Your task to perform on an android device: allow cookies in the chrome app Image 0: 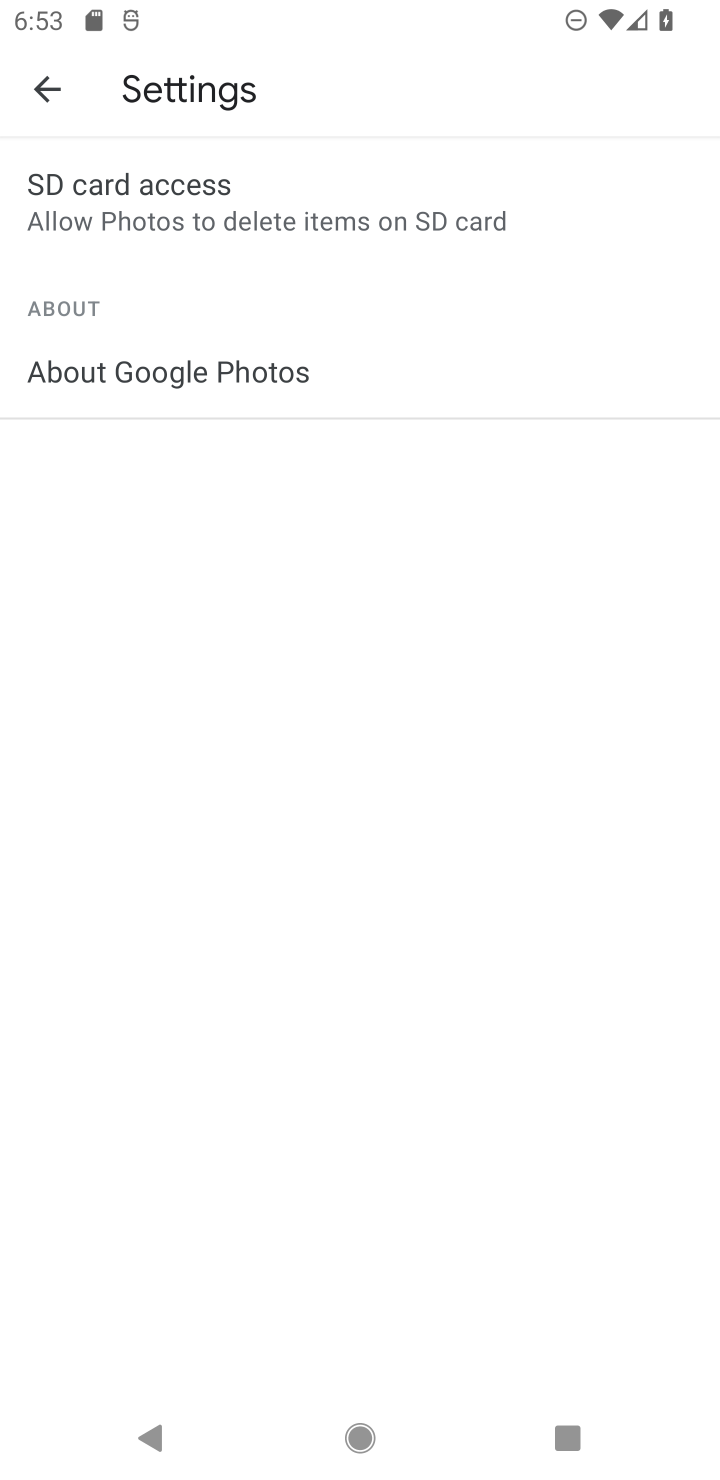
Step 0: press home button
Your task to perform on an android device: allow cookies in the chrome app Image 1: 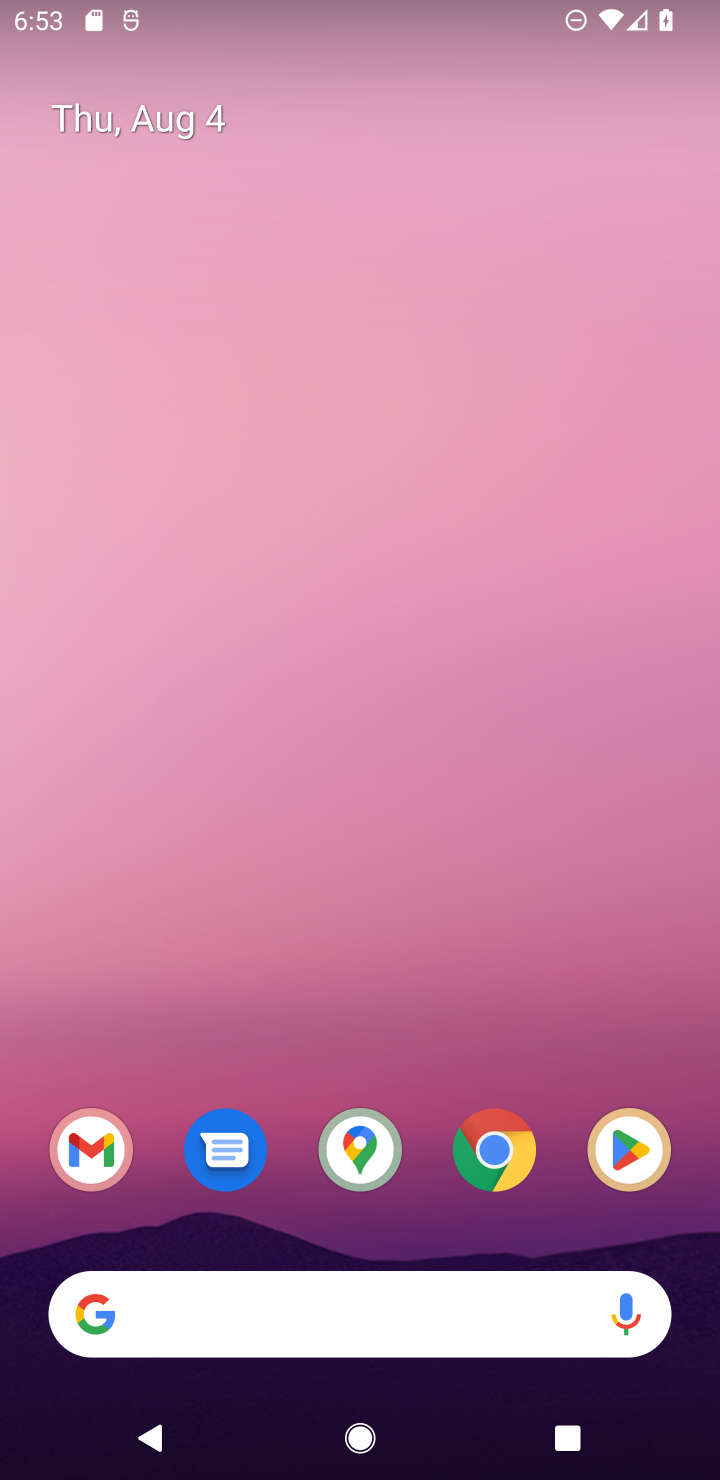
Step 1: drag from (320, 1205) to (461, 6)
Your task to perform on an android device: allow cookies in the chrome app Image 2: 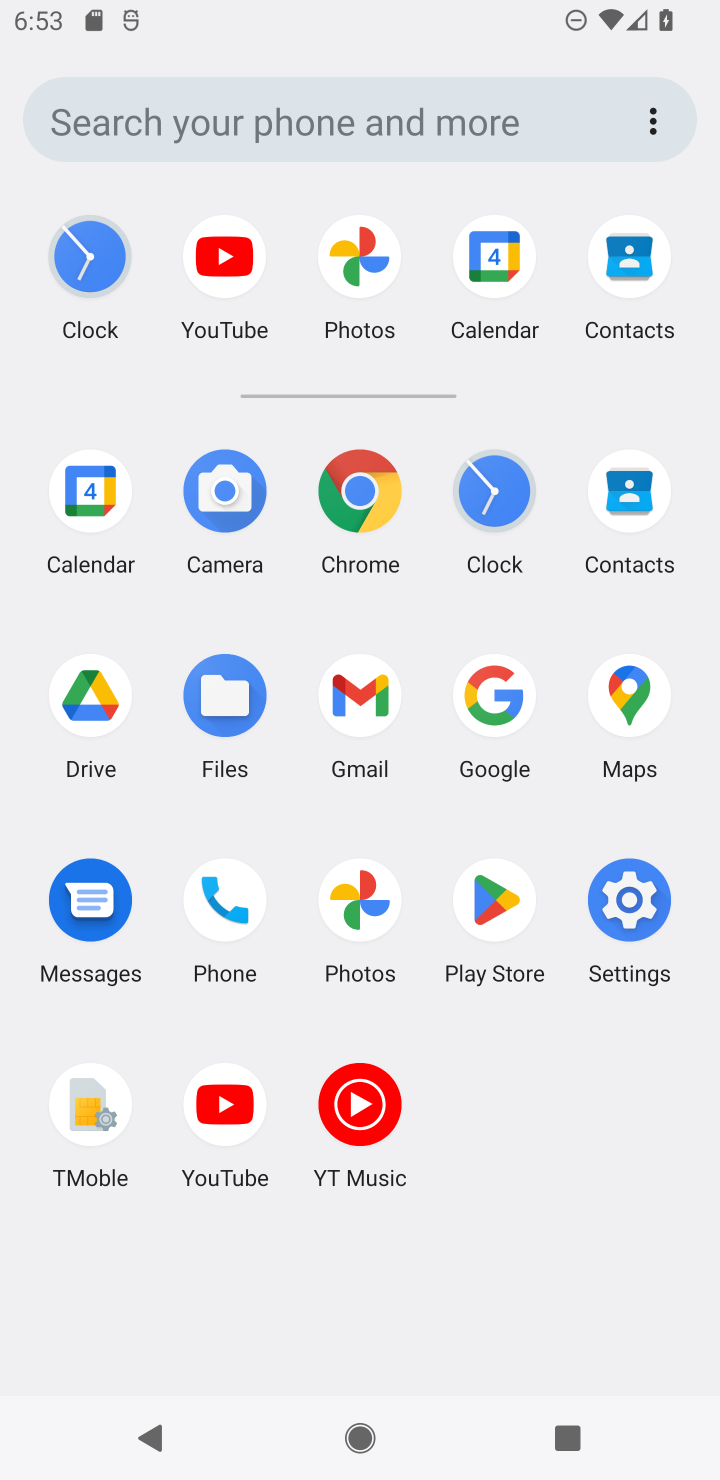
Step 2: click (374, 468)
Your task to perform on an android device: allow cookies in the chrome app Image 3: 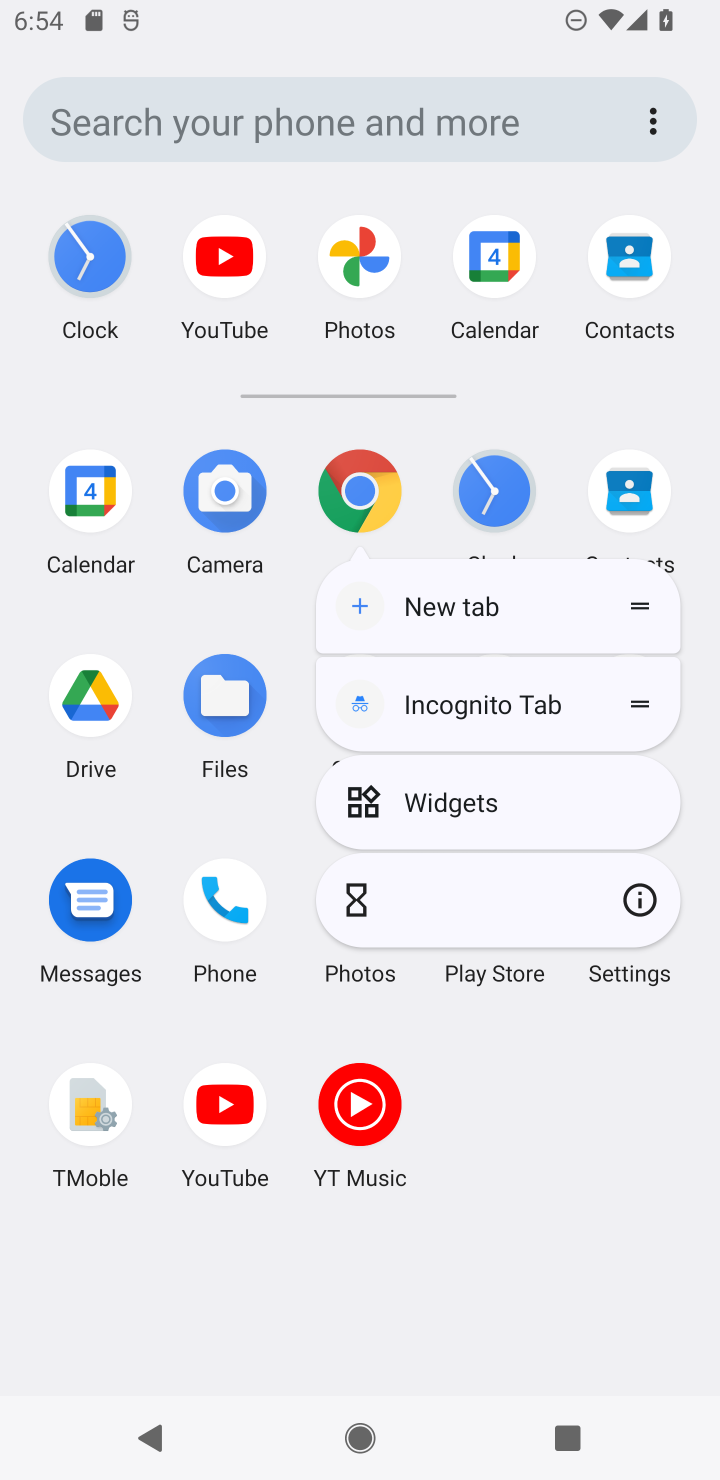
Step 3: click (373, 469)
Your task to perform on an android device: allow cookies in the chrome app Image 4: 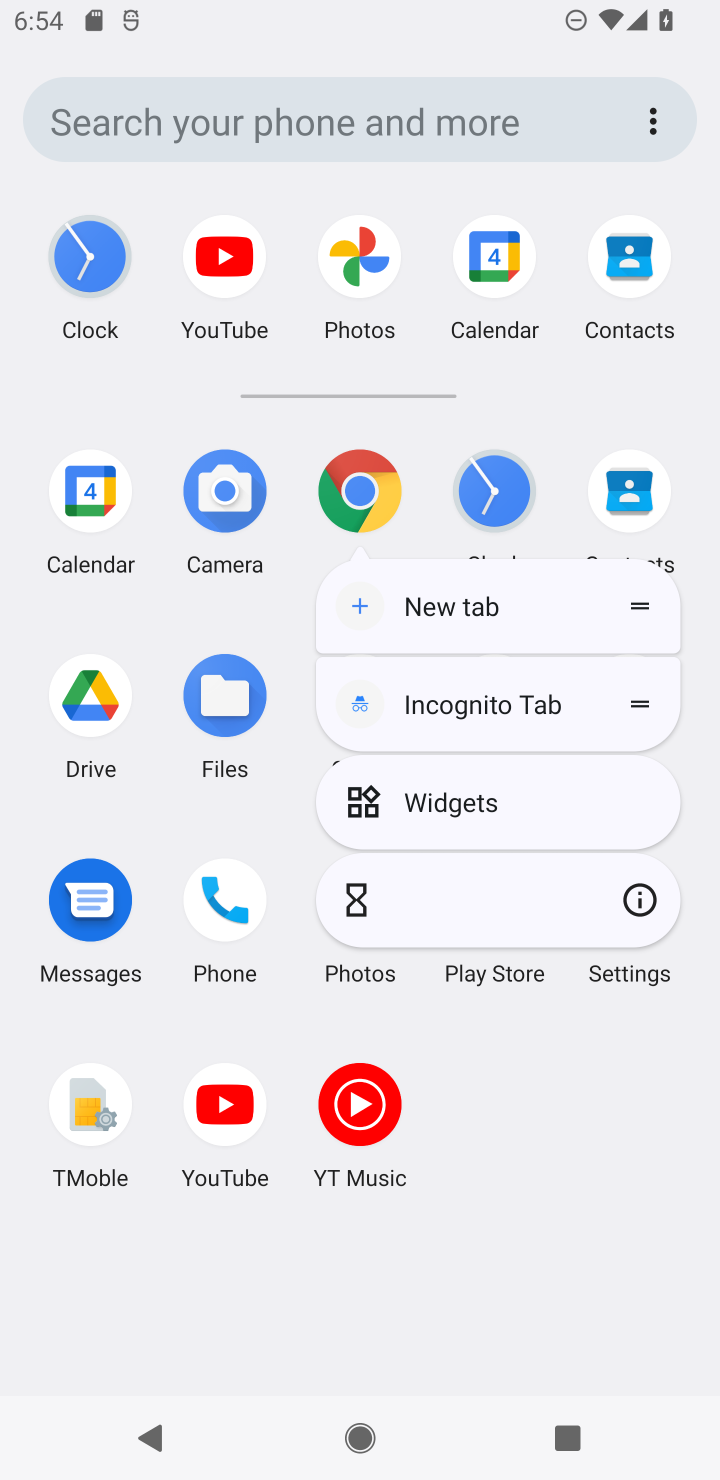
Step 4: click (360, 532)
Your task to perform on an android device: allow cookies in the chrome app Image 5: 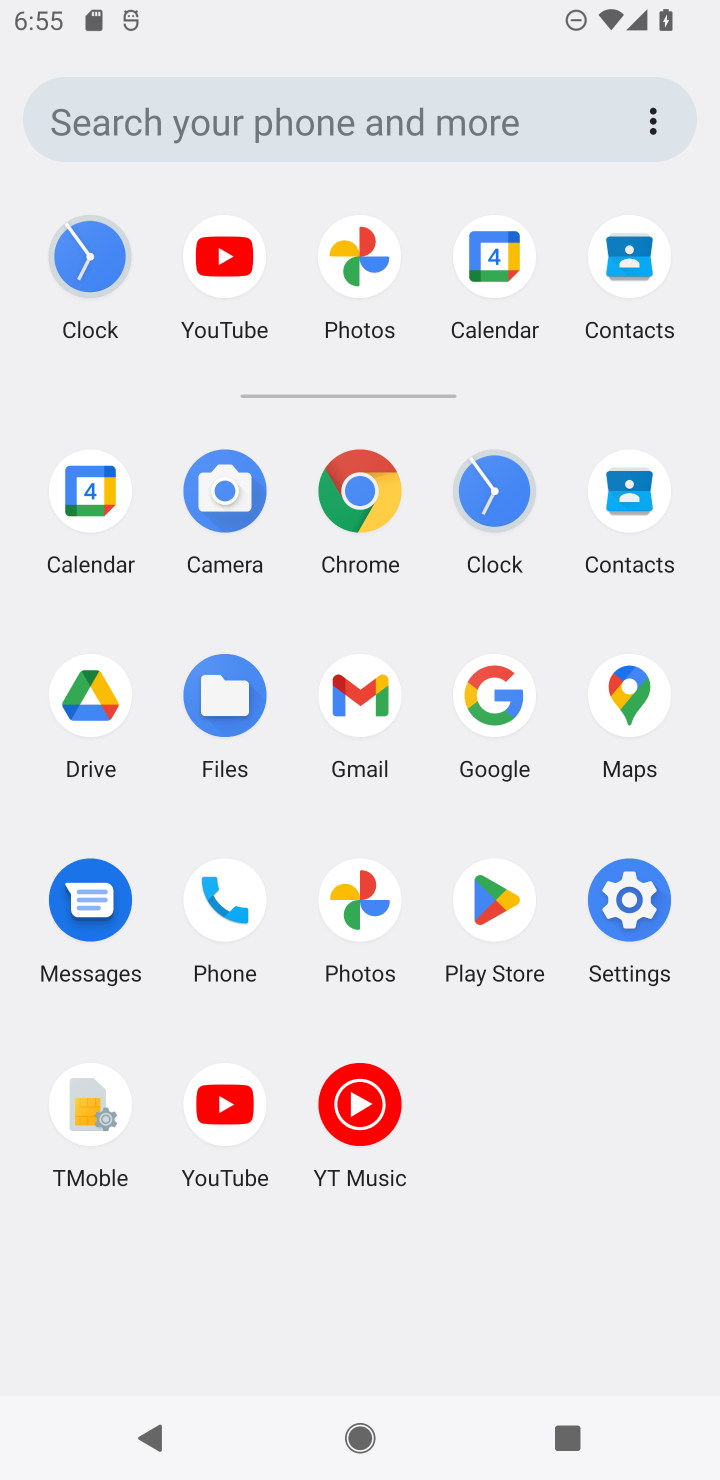
Step 5: click (341, 516)
Your task to perform on an android device: allow cookies in the chrome app Image 6: 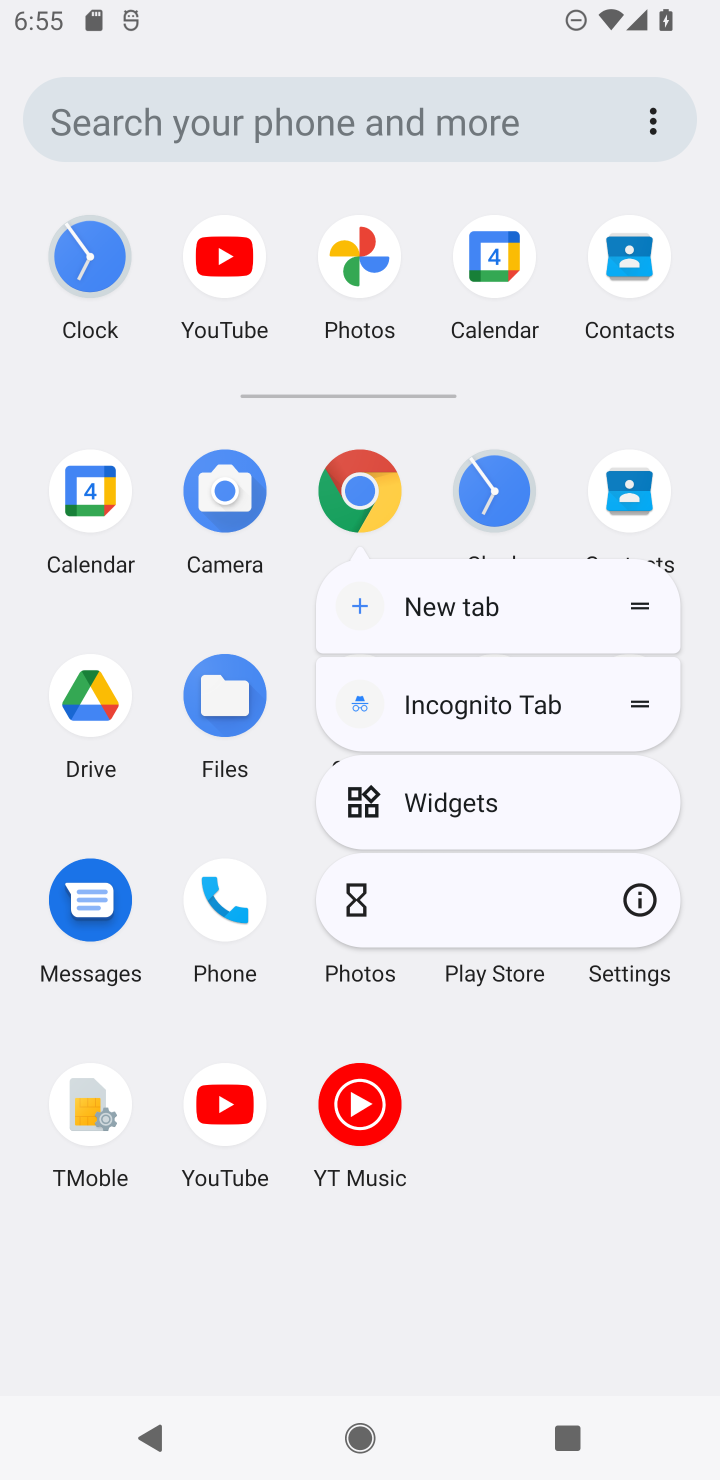
Step 6: click (356, 471)
Your task to perform on an android device: allow cookies in the chrome app Image 7: 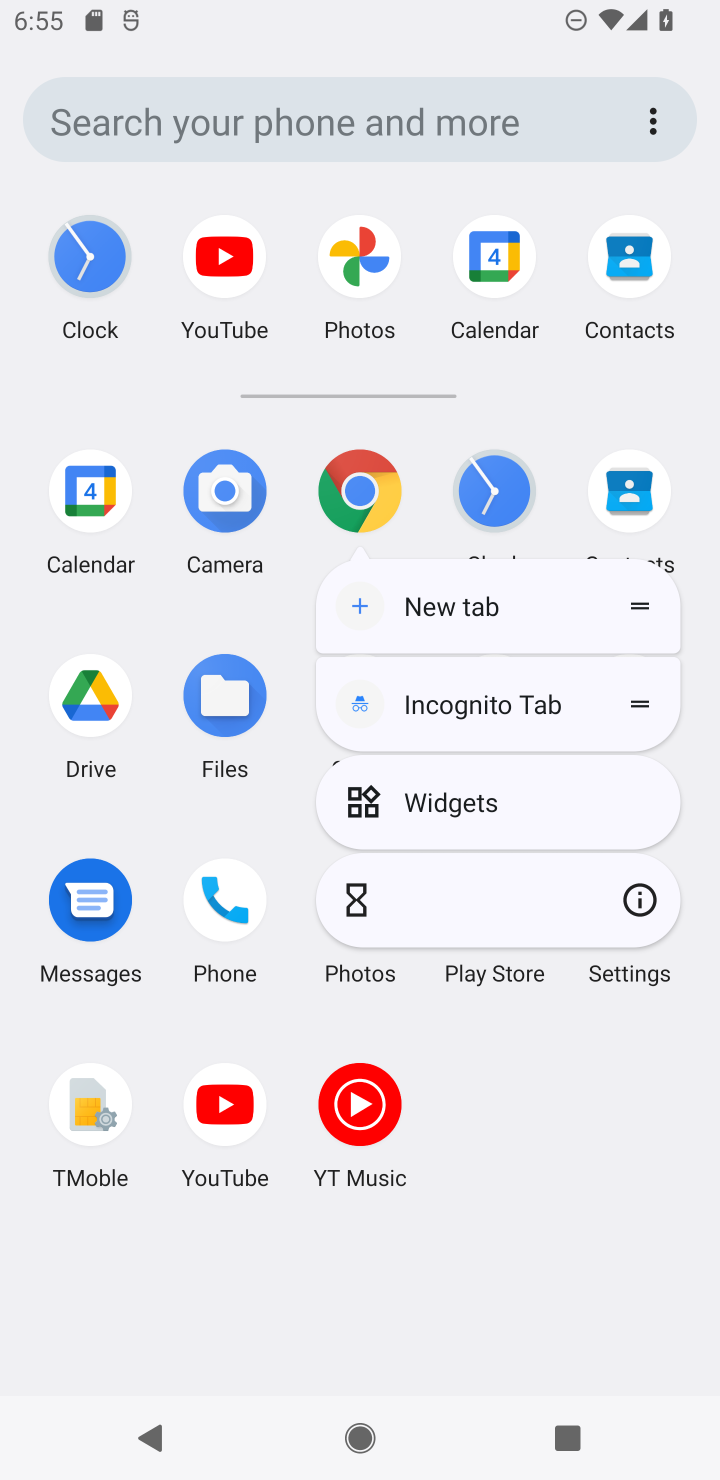
Step 7: click (353, 471)
Your task to perform on an android device: allow cookies in the chrome app Image 8: 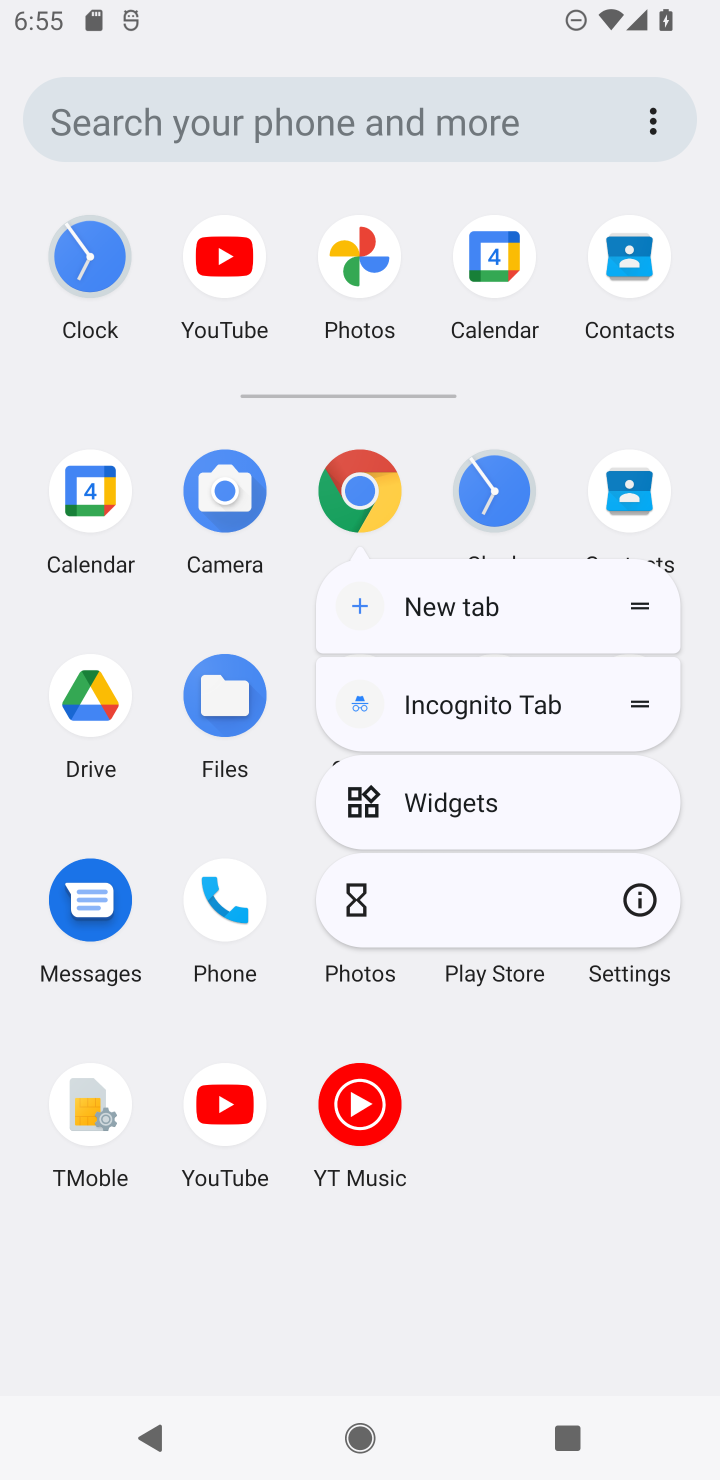
Step 8: click (353, 471)
Your task to perform on an android device: allow cookies in the chrome app Image 9: 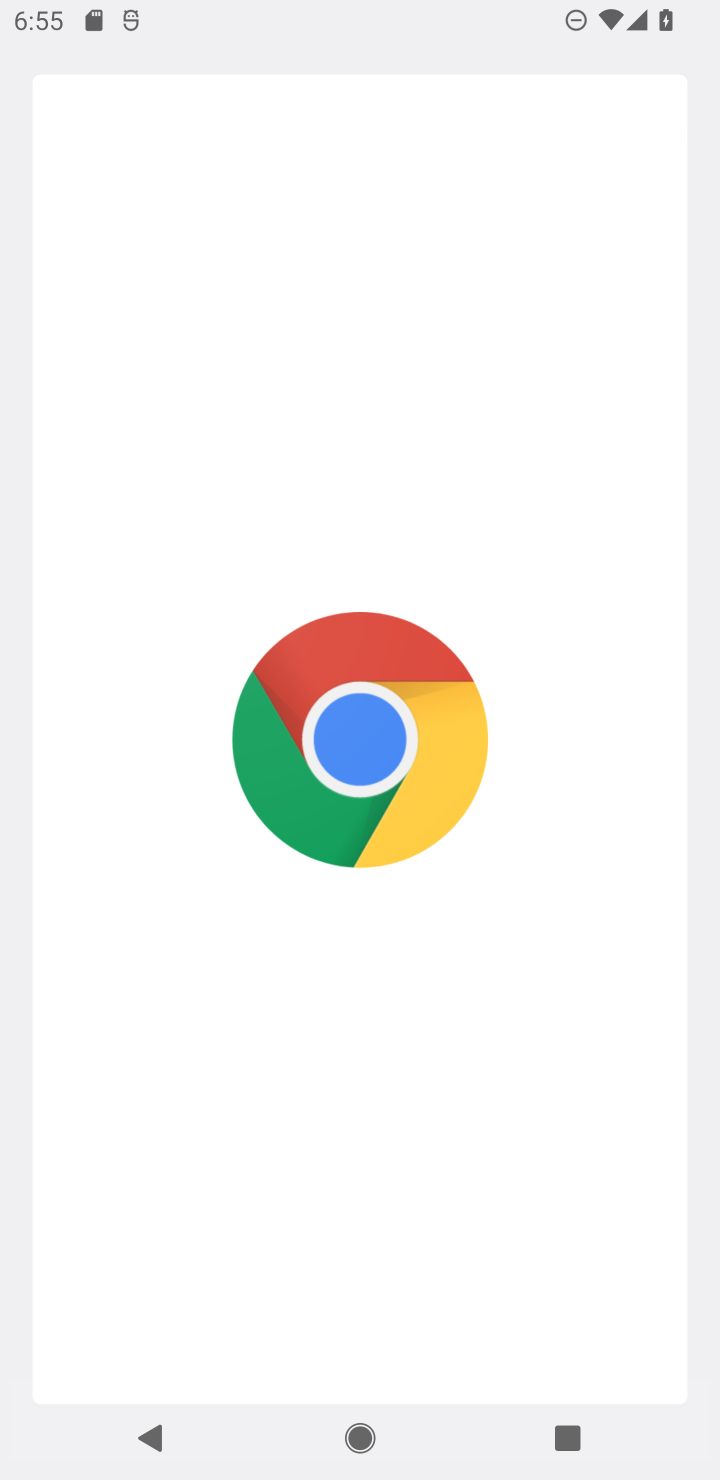
Step 9: click (353, 471)
Your task to perform on an android device: allow cookies in the chrome app Image 10: 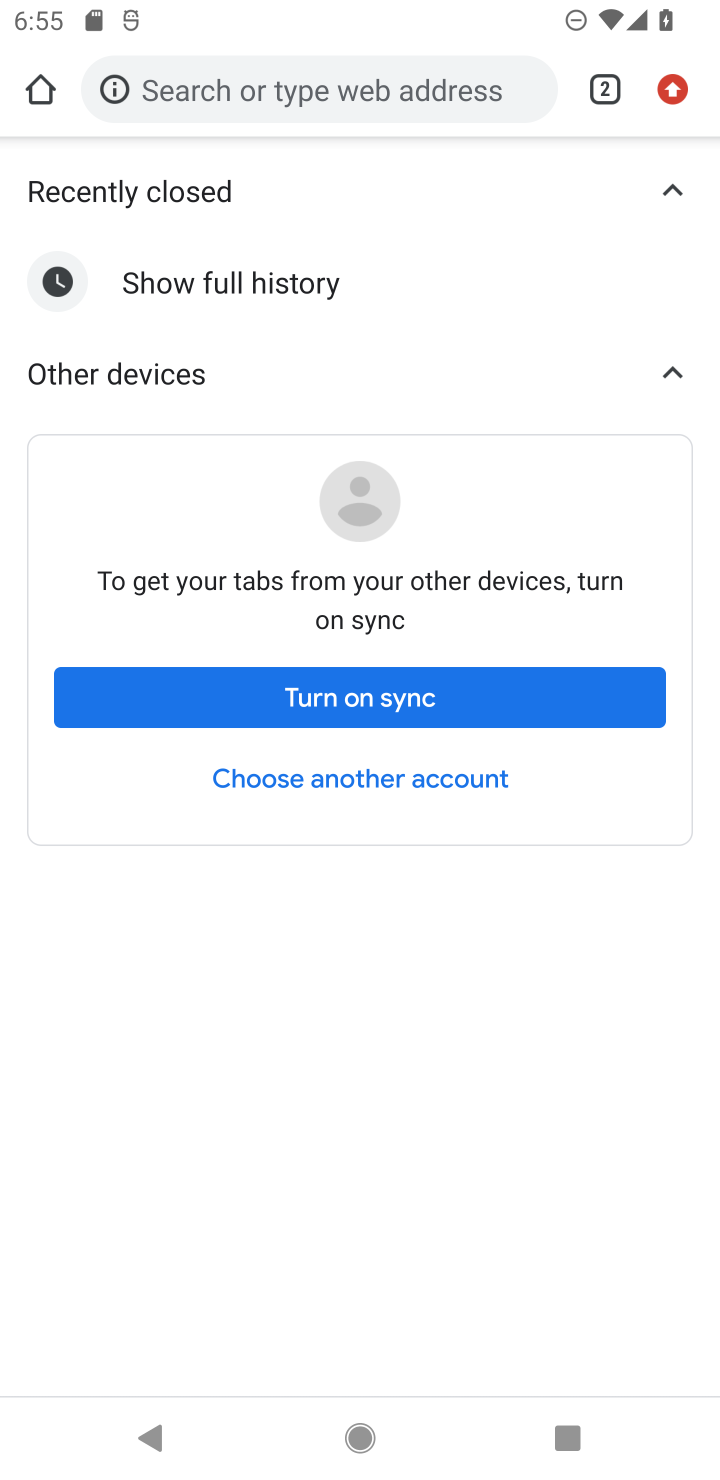
Step 10: drag from (657, 74) to (402, 930)
Your task to perform on an android device: allow cookies in the chrome app Image 11: 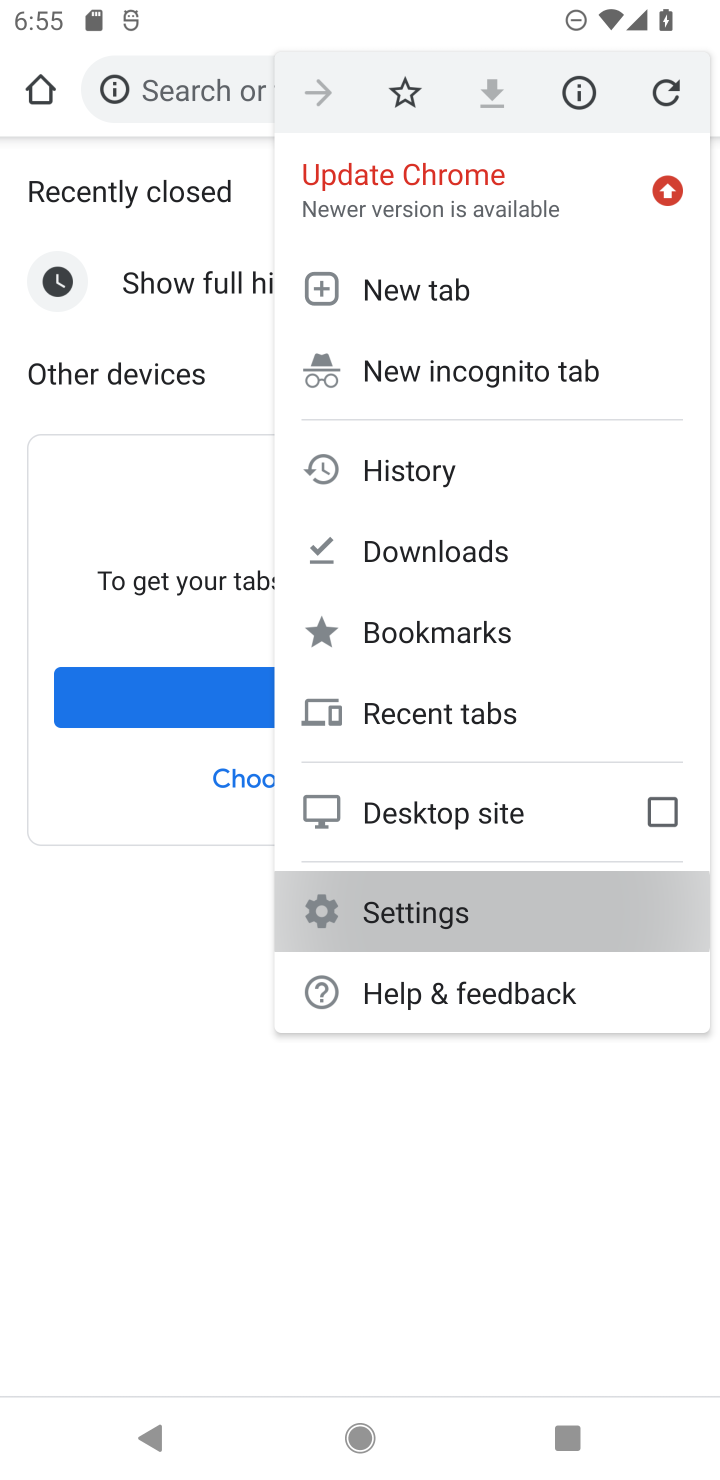
Step 11: click (402, 930)
Your task to perform on an android device: allow cookies in the chrome app Image 12: 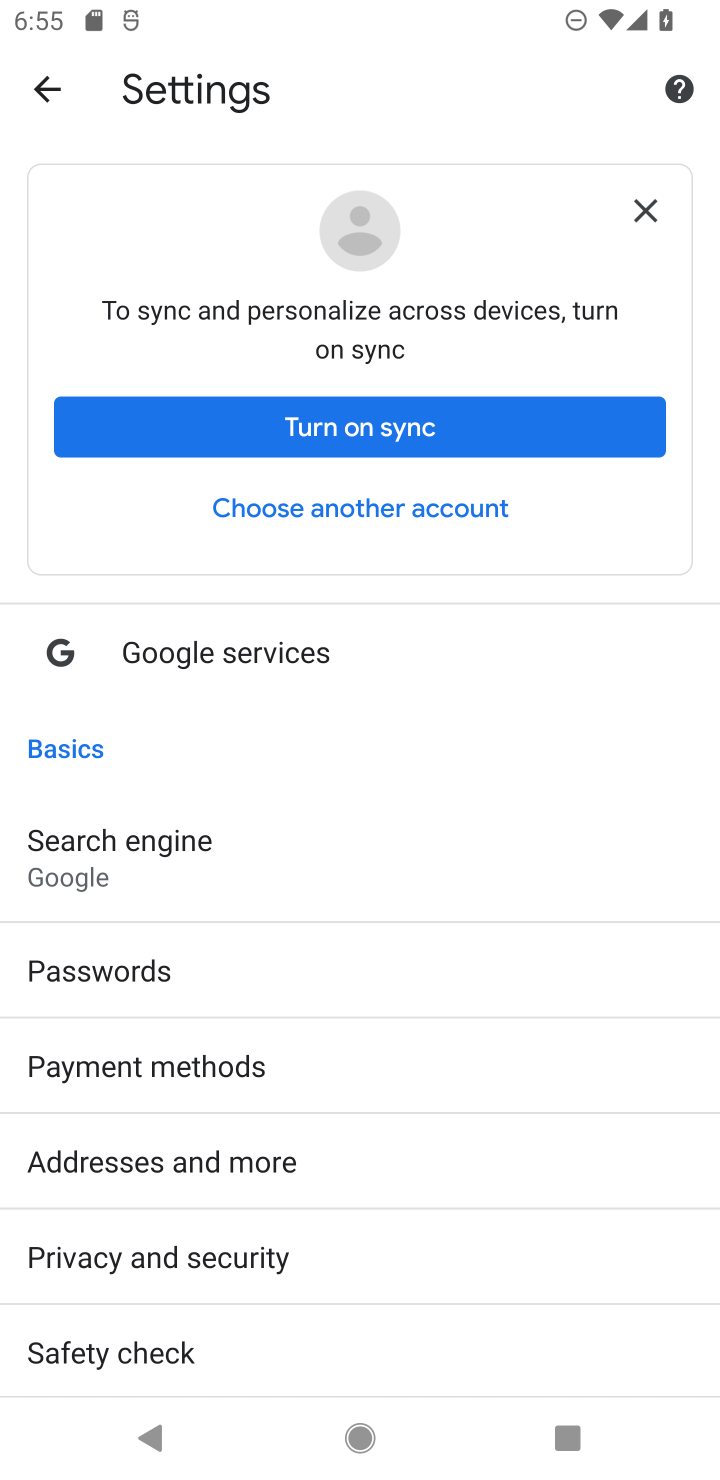
Step 12: drag from (347, 1371) to (444, 318)
Your task to perform on an android device: allow cookies in the chrome app Image 13: 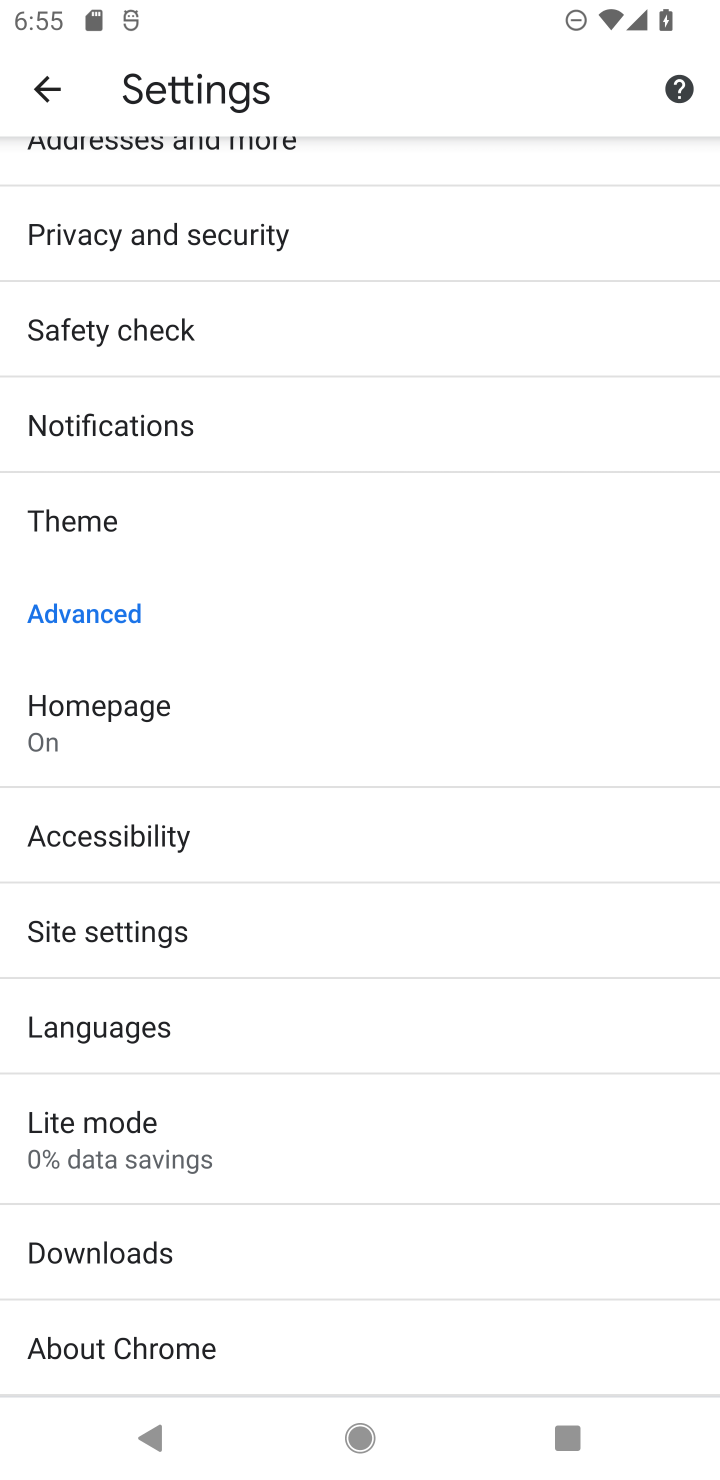
Step 13: click (145, 976)
Your task to perform on an android device: allow cookies in the chrome app Image 14: 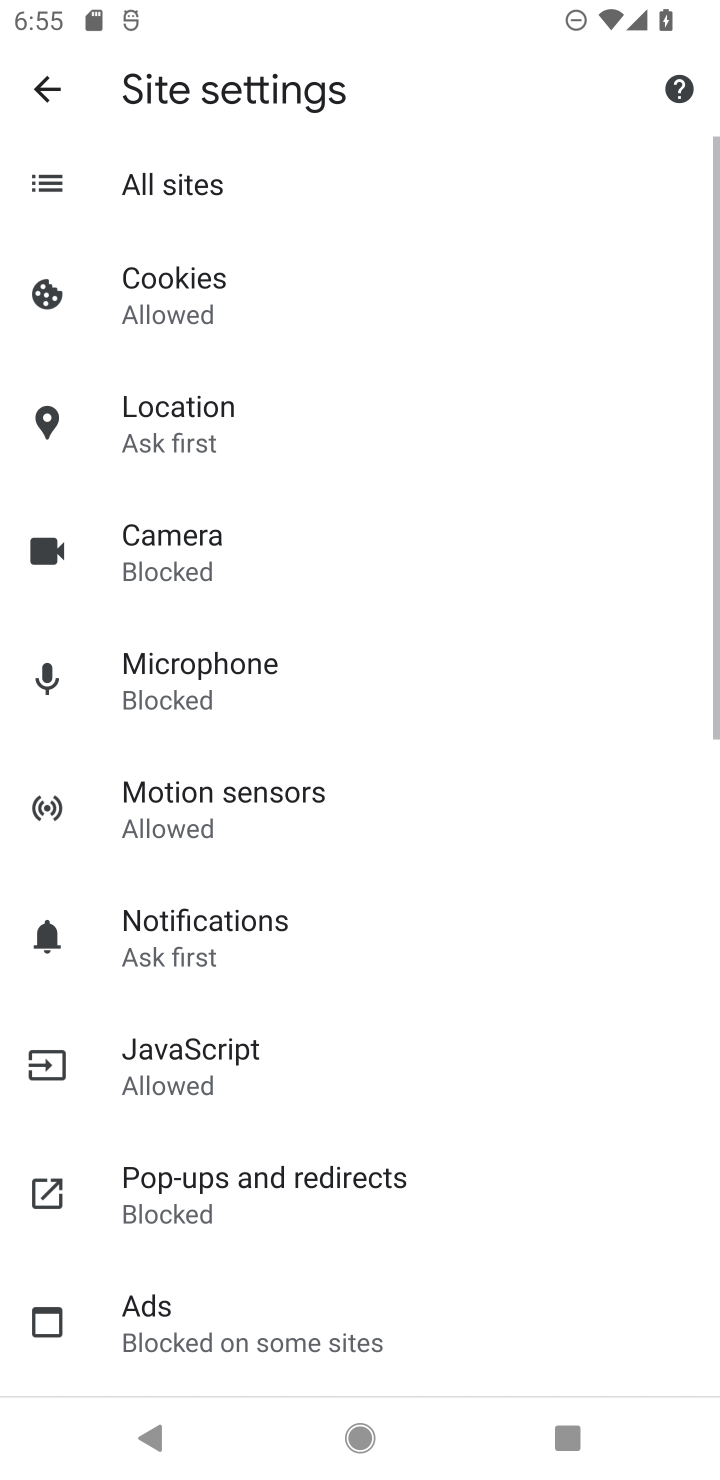
Step 14: click (210, 281)
Your task to perform on an android device: allow cookies in the chrome app Image 15: 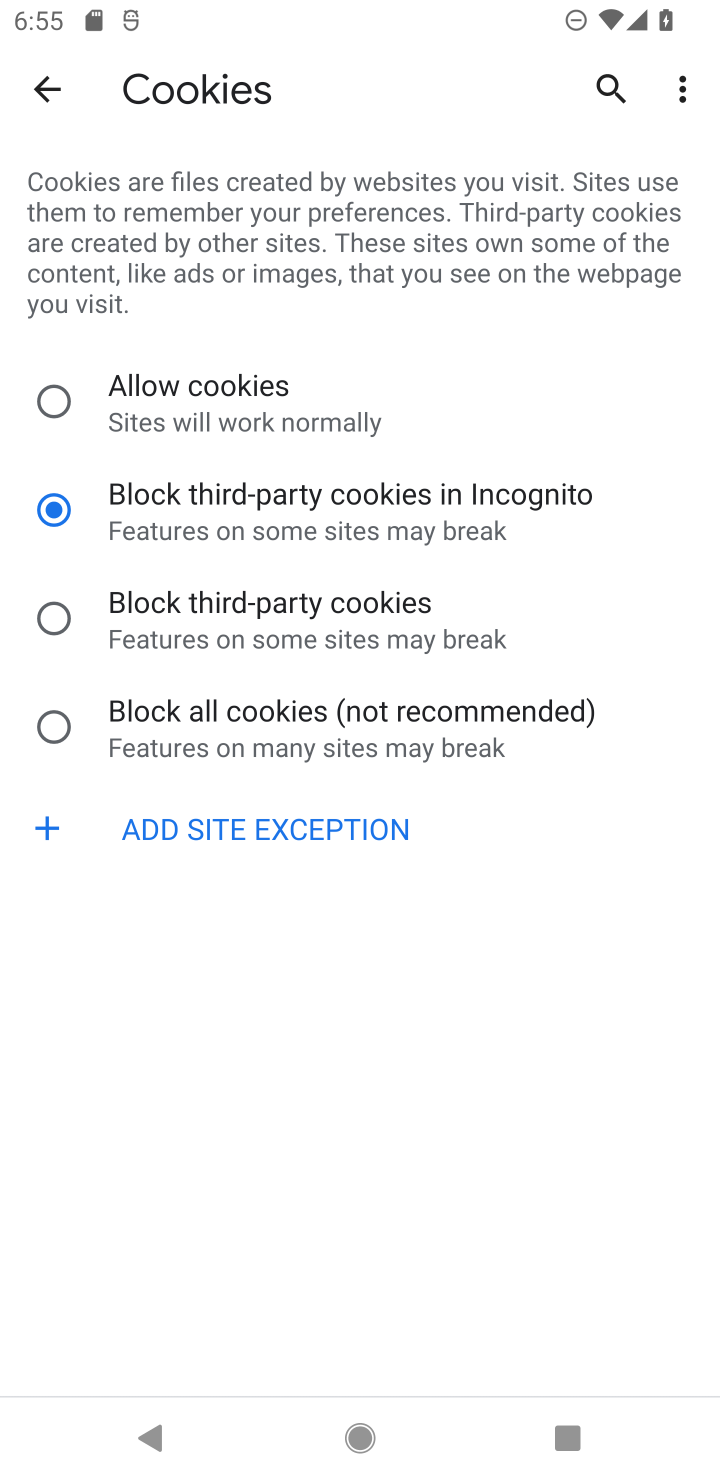
Step 15: task complete